Your task to perform on an android device: change alarm snooze length Image 0: 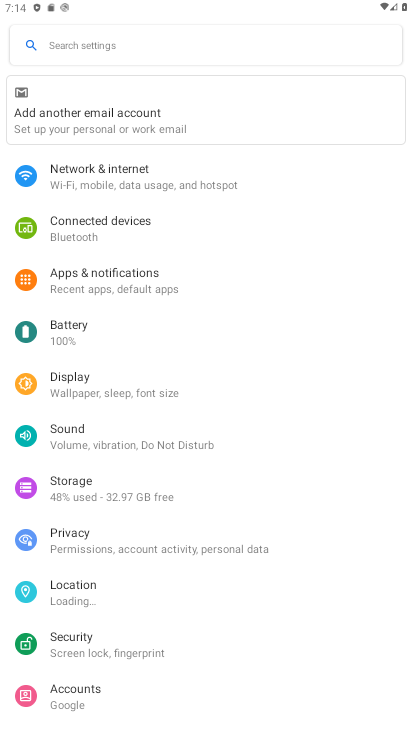
Step 0: press home button
Your task to perform on an android device: change alarm snooze length Image 1: 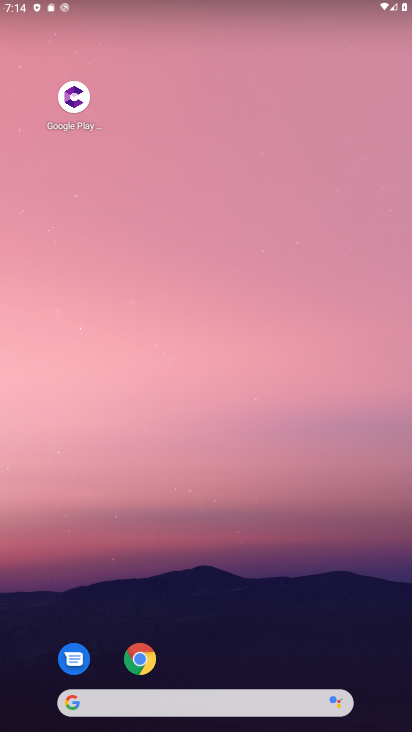
Step 1: drag from (236, 675) to (147, 14)
Your task to perform on an android device: change alarm snooze length Image 2: 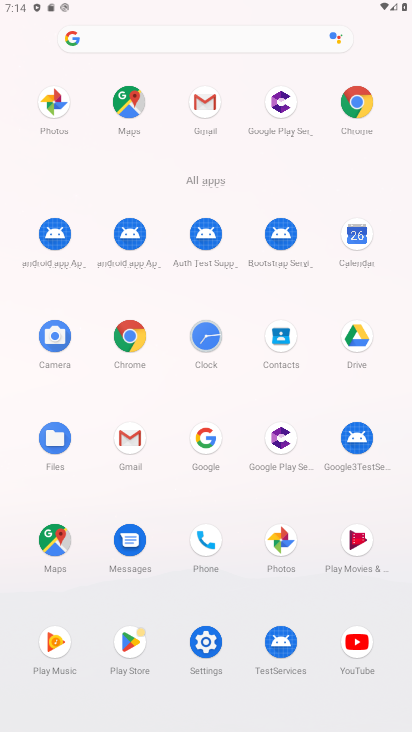
Step 2: click (215, 333)
Your task to perform on an android device: change alarm snooze length Image 3: 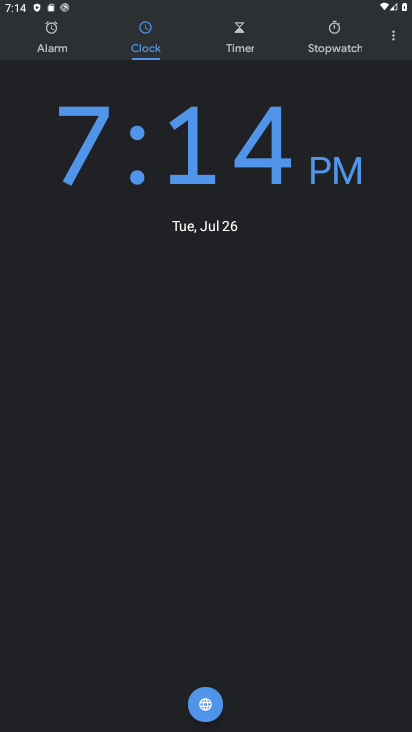
Step 3: click (394, 41)
Your task to perform on an android device: change alarm snooze length Image 4: 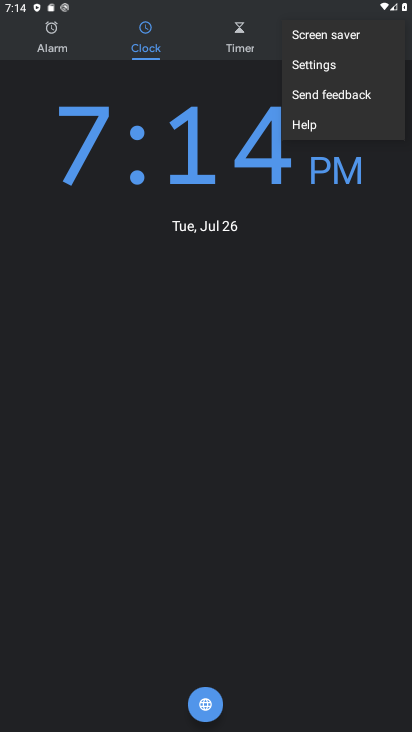
Step 4: click (324, 58)
Your task to perform on an android device: change alarm snooze length Image 5: 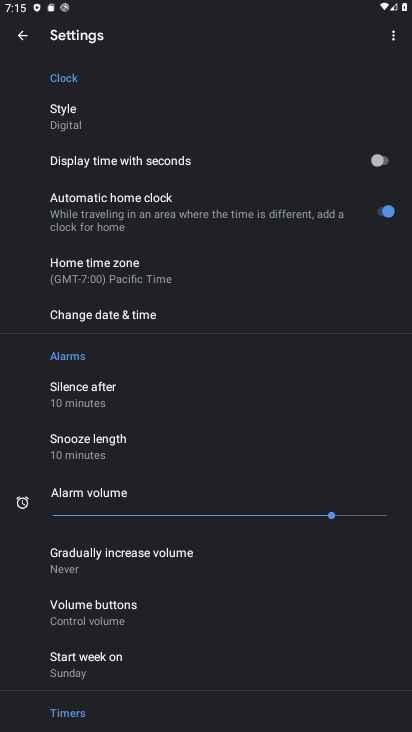
Step 5: click (90, 435)
Your task to perform on an android device: change alarm snooze length Image 6: 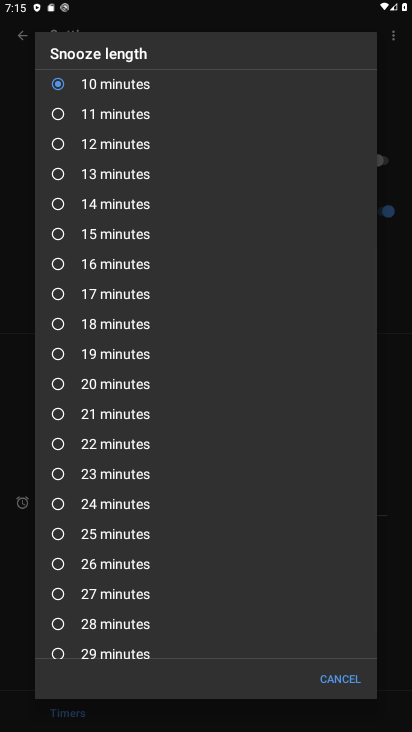
Step 6: click (84, 116)
Your task to perform on an android device: change alarm snooze length Image 7: 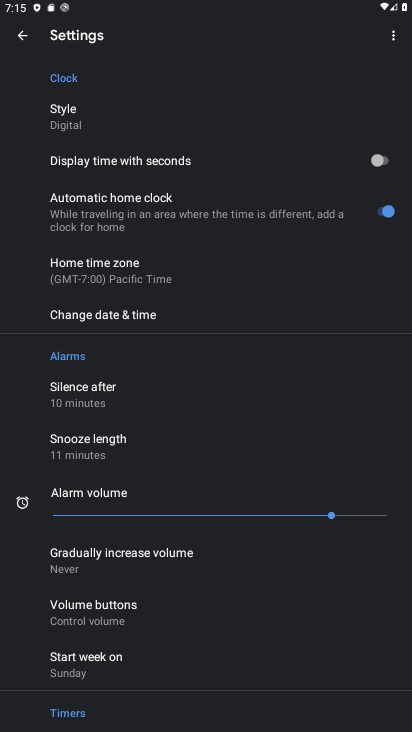
Step 7: task complete